Your task to perform on an android device: toggle priority inbox in the gmail app Image 0: 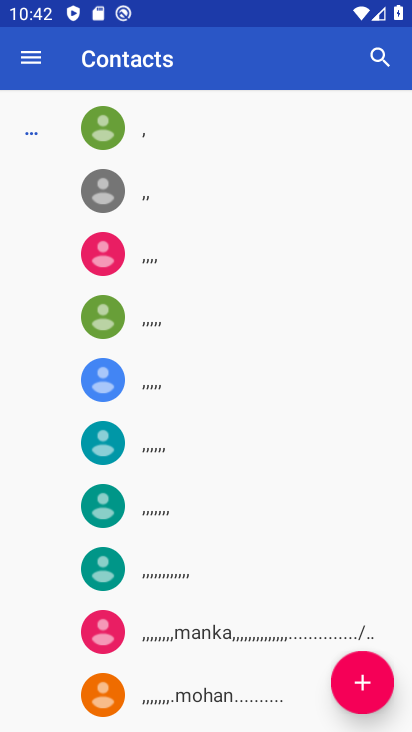
Step 0: press home button
Your task to perform on an android device: toggle priority inbox in the gmail app Image 1: 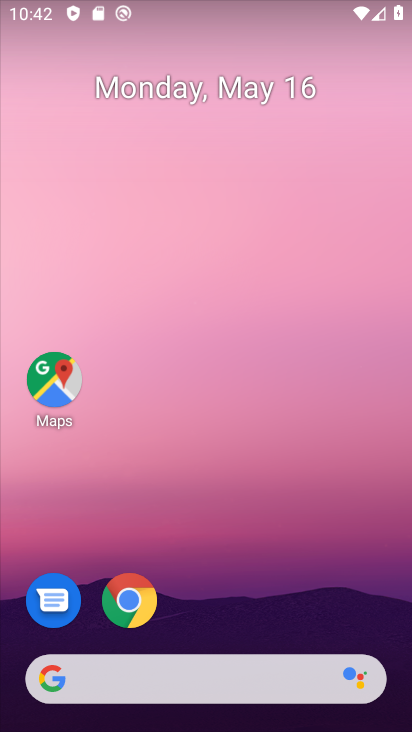
Step 1: drag from (225, 620) to (251, 225)
Your task to perform on an android device: toggle priority inbox in the gmail app Image 2: 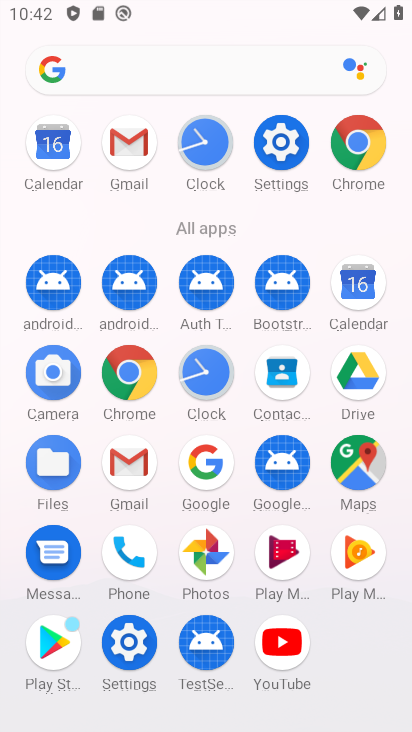
Step 2: click (135, 467)
Your task to perform on an android device: toggle priority inbox in the gmail app Image 3: 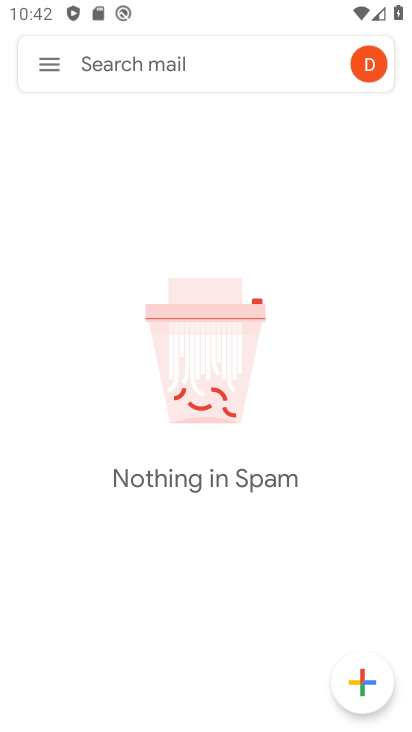
Step 3: click (41, 65)
Your task to perform on an android device: toggle priority inbox in the gmail app Image 4: 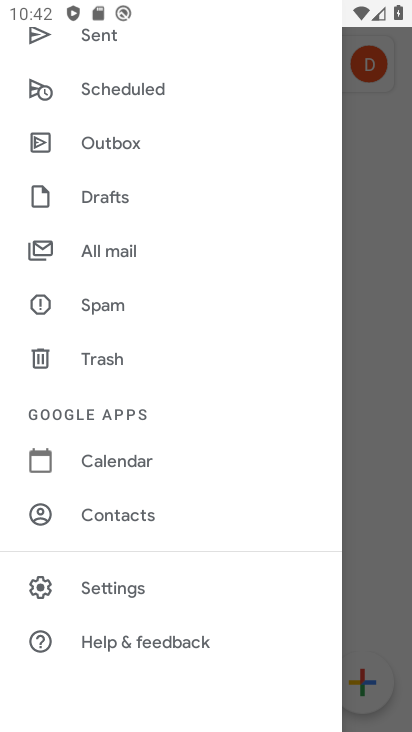
Step 4: click (164, 590)
Your task to perform on an android device: toggle priority inbox in the gmail app Image 5: 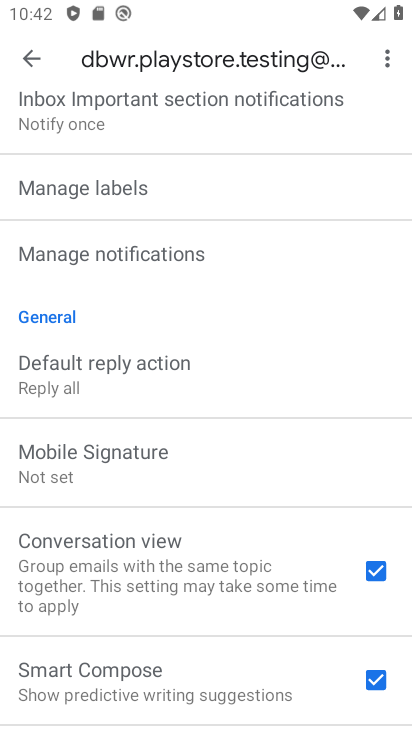
Step 5: drag from (158, 517) to (251, 177)
Your task to perform on an android device: toggle priority inbox in the gmail app Image 6: 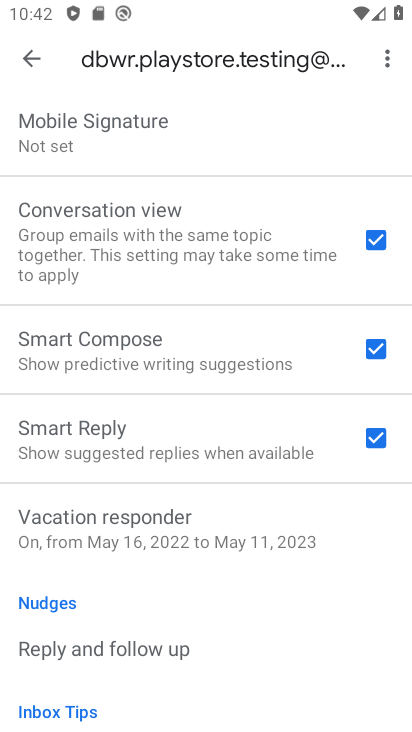
Step 6: drag from (170, 209) to (161, 617)
Your task to perform on an android device: toggle priority inbox in the gmail app Image 7: 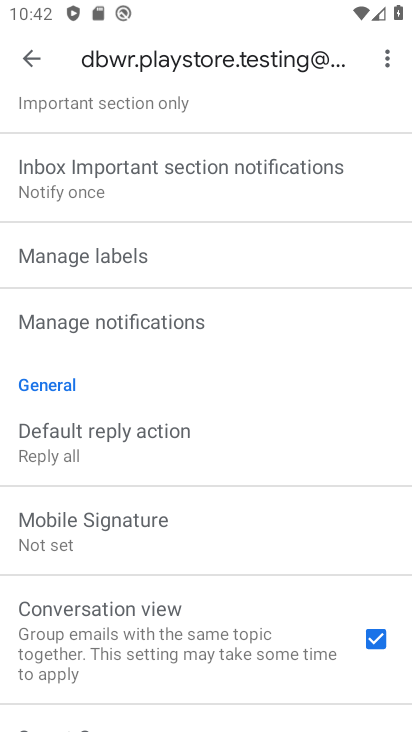
Step 7: drag from (242, 182) to (232, 565)
Your task to perform on an android device: toggle priority inbox in the gmail app Image 8: 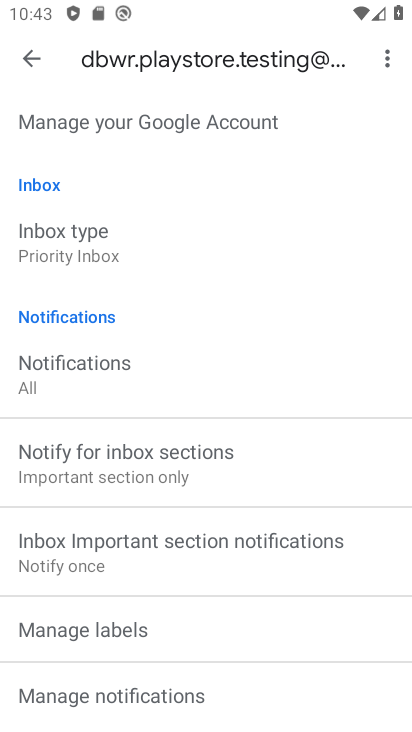
Step 8: click (56, 249)
Your task to perform on an android device: toggle priority inbox in the gmail app Image 9: 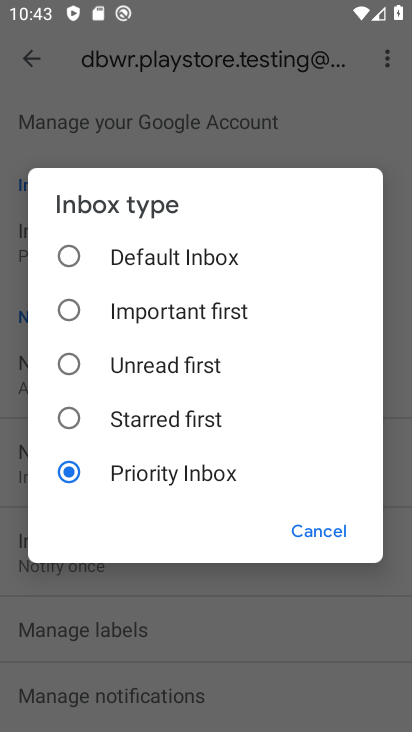
Step 9: task complete